Your task to perform on an android device: snooze an email in the gmail app Image 0: 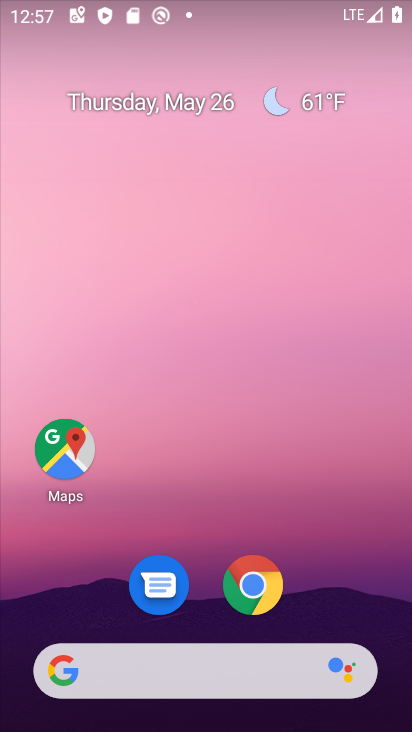
Step 0: drag from (224, 488) to (209, 110)
Your task to perform on an android device: snooze an email in the gmail app Image 1: 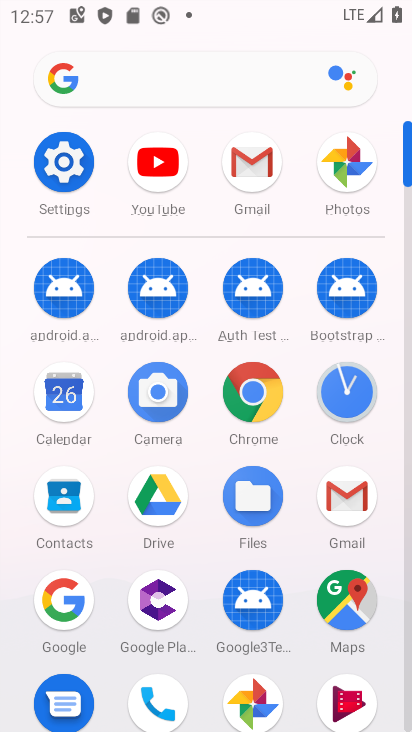
Step 1: click (243, 152)
Your task to perform on an android device: snooze an email in the gmail app Image 2: 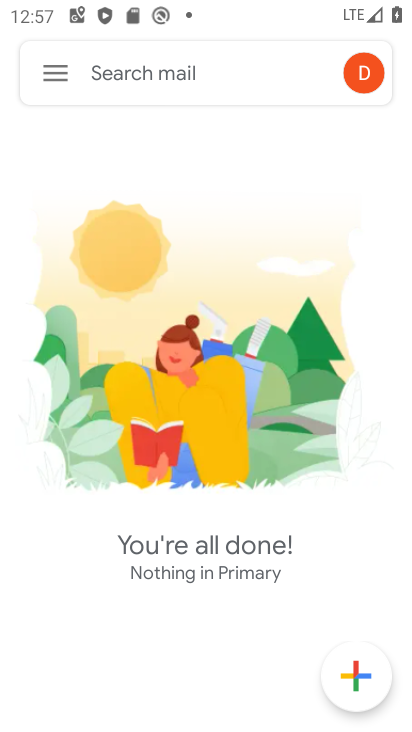
Step 2: click (55, 74)
Your task to perform on an android device: snooze an email in the gmail app Image 3: 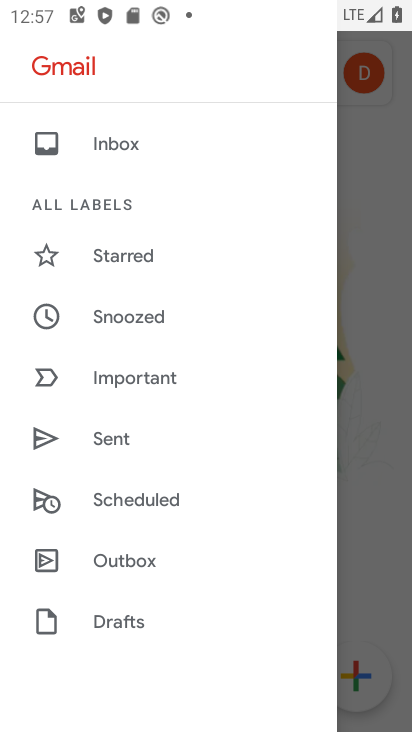
Step 3: drag from (140, 531) to (190, 157)
Your task to perform on an android device: snooze an email in the gmail app Image 4: 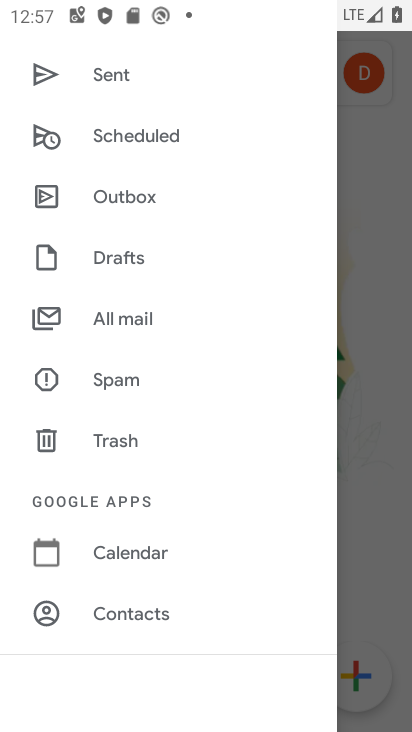
Step 4: click (159, 310)
Your task to perform on an android device: snooze an email in the gmail app Image 5: 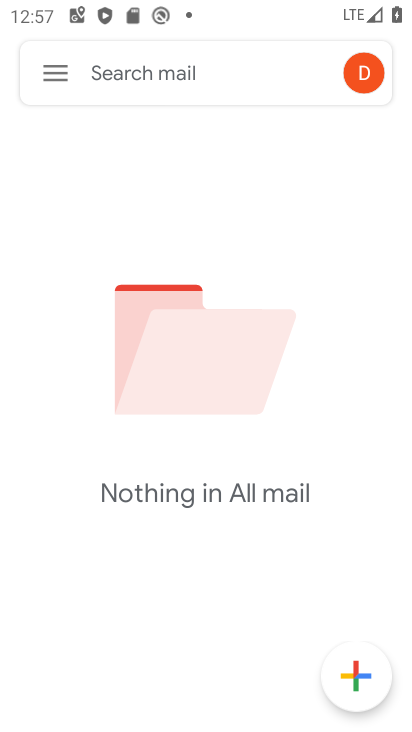
Step 5: task complete